Your task to perform on an android device: empty trash in the gmail app Image 0: 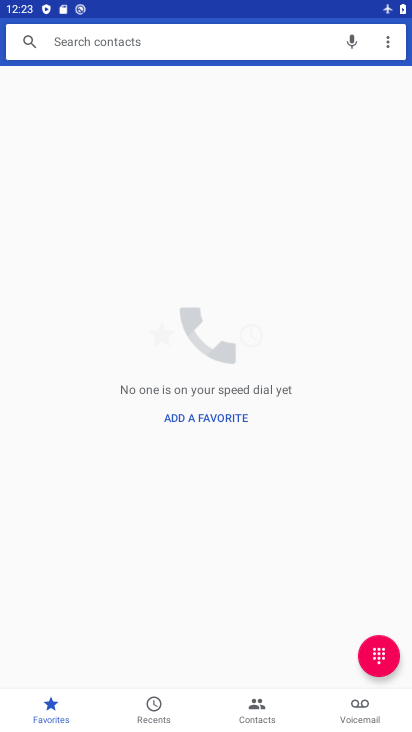
Step 0: press home button
Your task to perform on an android device: empty trash in the gmail app Image 1: 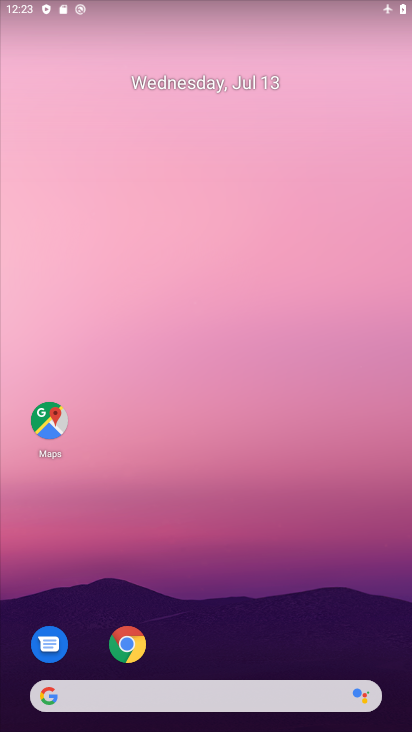
Step 1: drag from (327, 653) to (342, 217)
Your task to perform on an android device: empty trash in the gmail app Image 2: 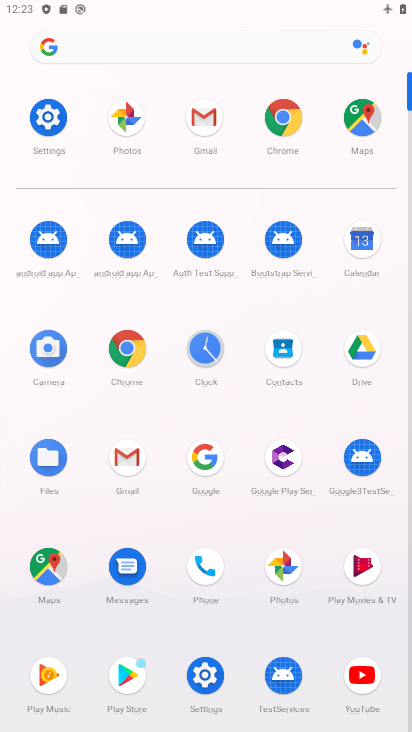
Step 2: click (205, 118)
Your task to perform on an android device: empty trash in the gmail app Image 3: 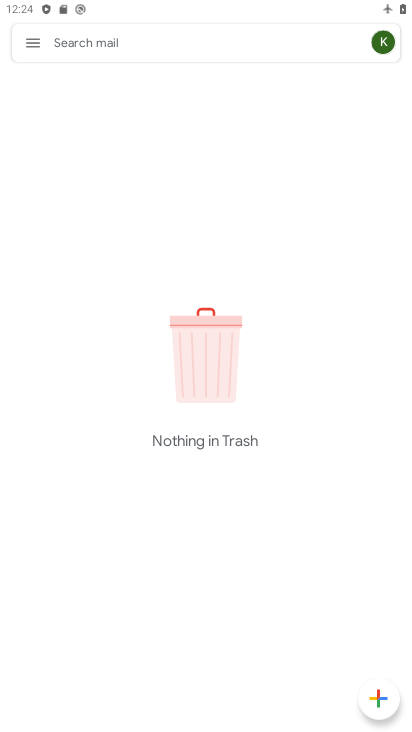
Step 3: click (32, 33)
Your task to perform on an android device: empty trash in the gmail app Image 4: 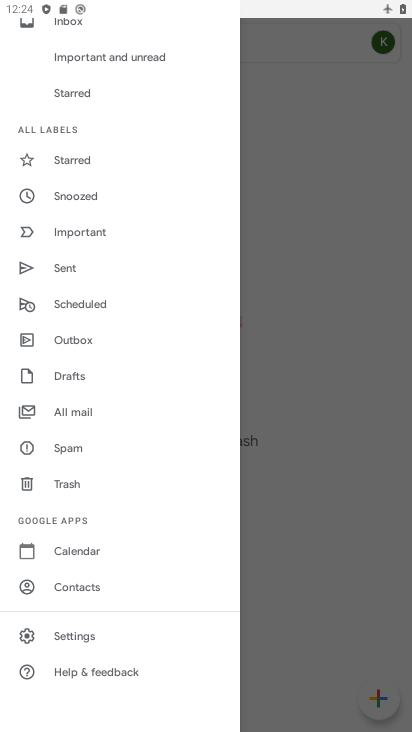
Step 4: click (71, 484)
Your task to perform on an android device: empty trash in the gmail app Image 5: 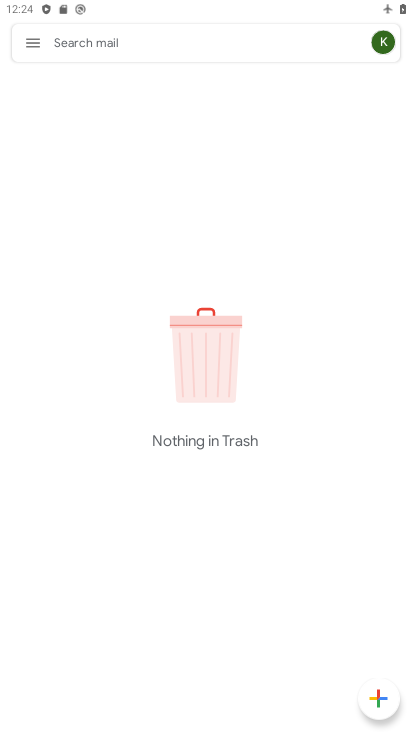
Step 5: task complete